Your task to perform on an android device: open chrome and create a bookmark for the current page Image 0: 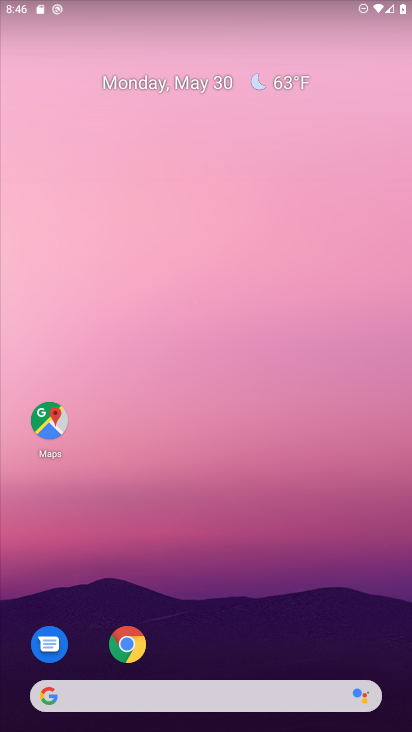
Step 0: drag from (213, 644) to (202, 90)
Your task to perform on an android device: open chrome and create a bookmark for the current page Image 1: 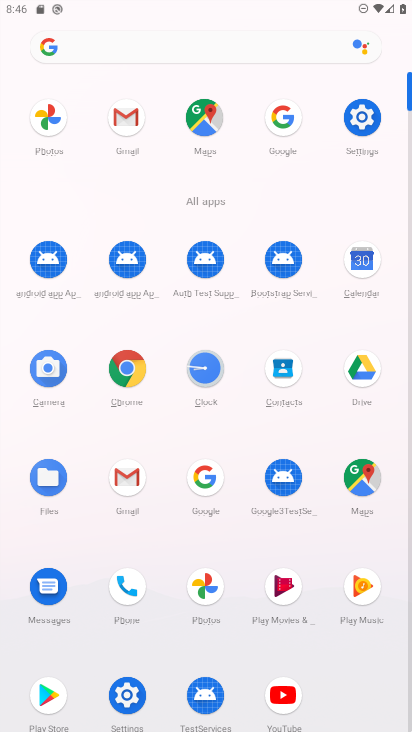
Step 1: click (130, 361)
Your task to perform on an android device: open chrome and create a bookmark for the current page Image 2: 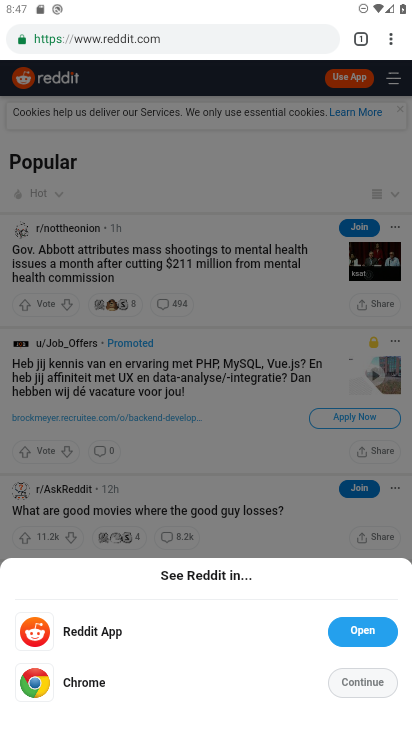
Step 2: click (392, 33)
Your task to perform on an android device: open chrome and create a bookmark for the current page Image 3: 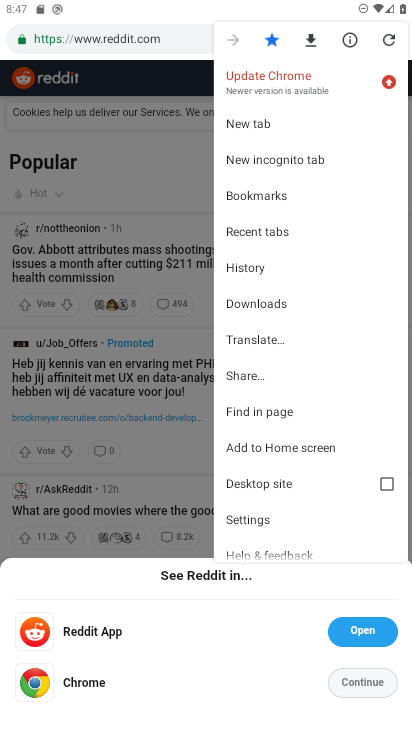
Step 3: task complete